Your task to perform on an android device: Open wifi settings Image 0: 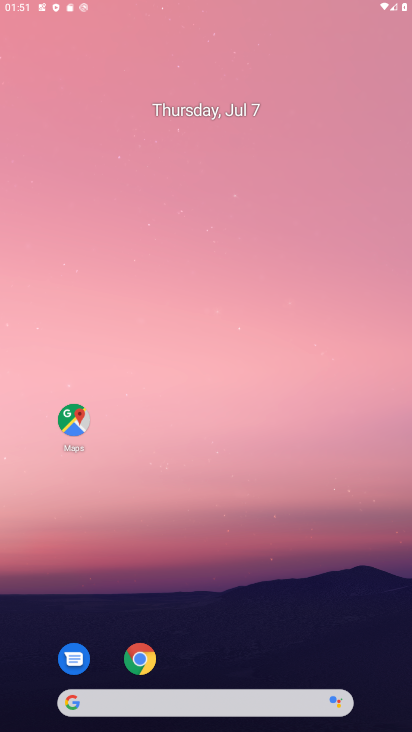
Step 0: drag from (294, 182) to (300, 140)
Your task to perform on an android device: Open wifi settings Image 1: 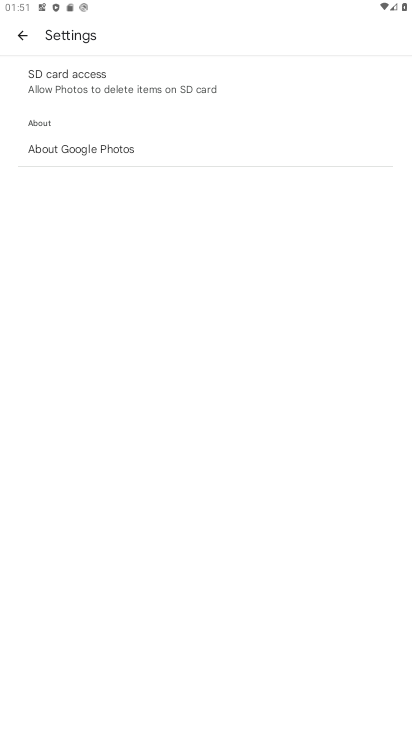
Step 1: press home button
Your task to perform on an android device: Open wifi settings Image 2: 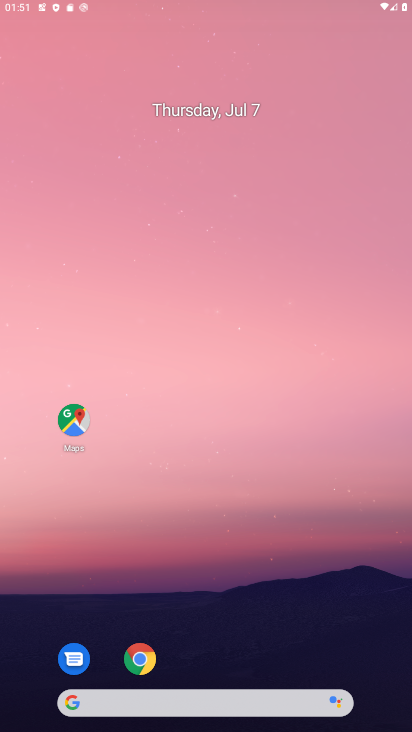
Step 2: drag from (221, 650) to (276, 88)
Your task to perform on an android device: Open wifi settings Image 3: 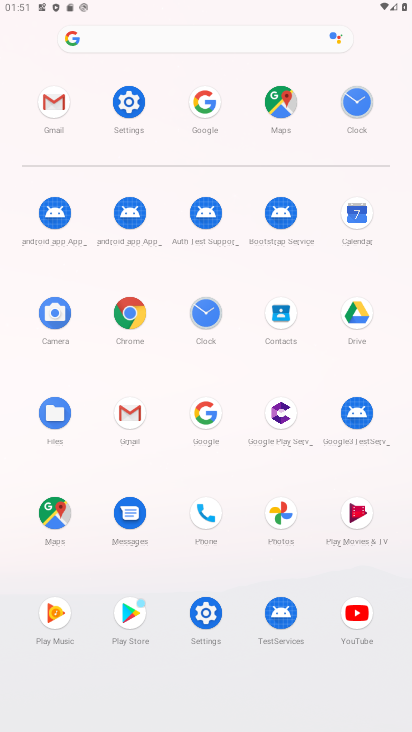
Step 3: click (133, 103)
Your task to perform on an android device: Open wifi settings Image 4: 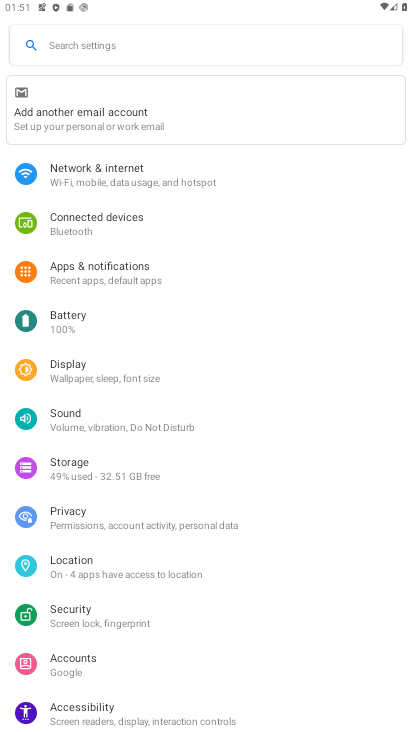
Step 4: click (126, 173)
Your task to perform on an android device: Open wifi settings Image 5: 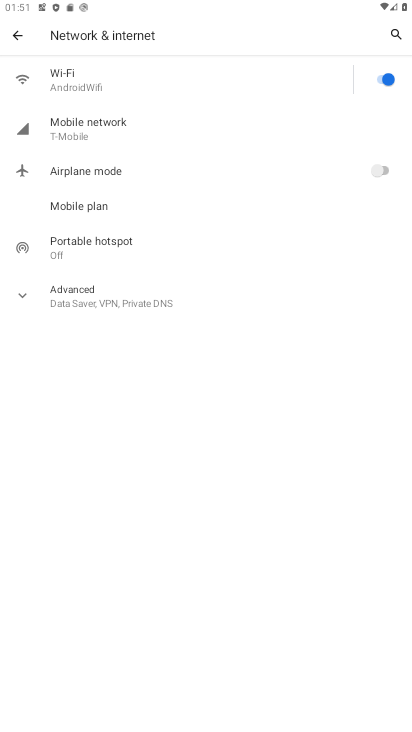
Step 5: click (83, 86)
Your task to perform on an android device: Open wifi settings Image 6: 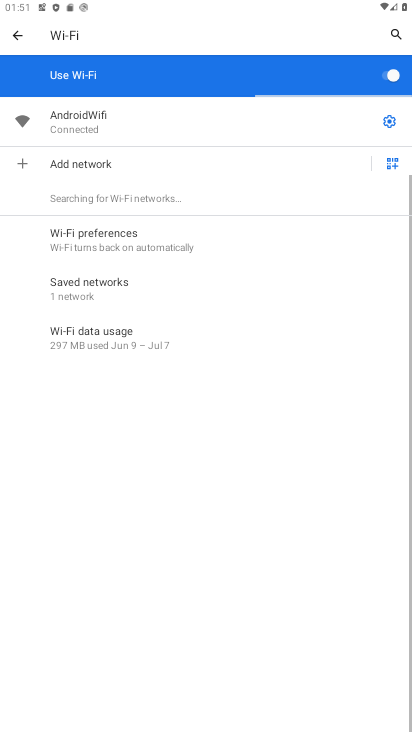
Step 6: click (377, 121)
Your task to perform on an android device: Open wifi settings Image 7: 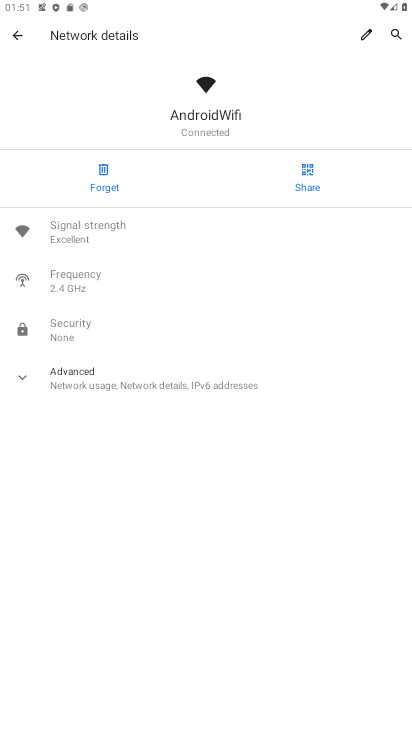
Step 7: task complete